Your task to perform on an android device: Show me the alarms in the clock app Image 0: 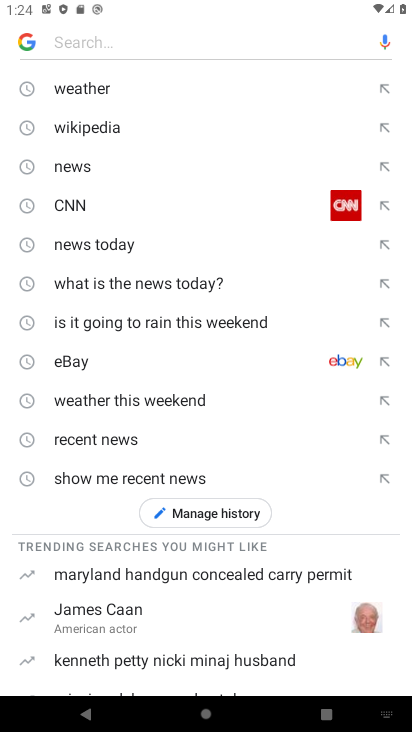
Step 0: press home button
Your task to perform on an android device: Show me the alarms in the clock app Image 1: 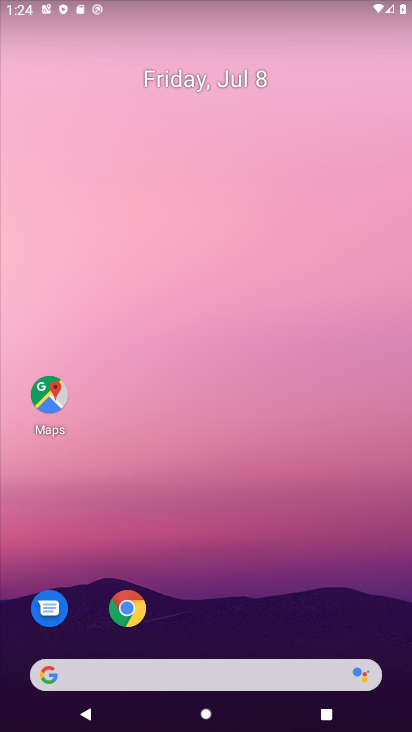
Step 1: drag from (381, 622) to (357, 77)
Your task to perform on an android device: Show me the alarms in the clock app Image 2: 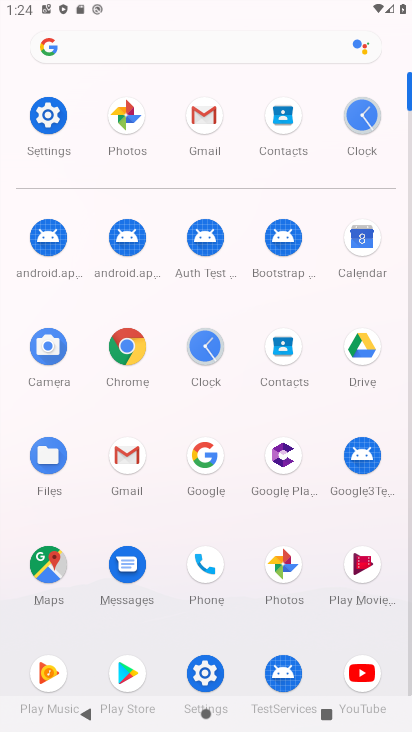
Step 2: click (202, 345)
Your task to perform on an android device: Show me the alarms in the clock app Image 3: 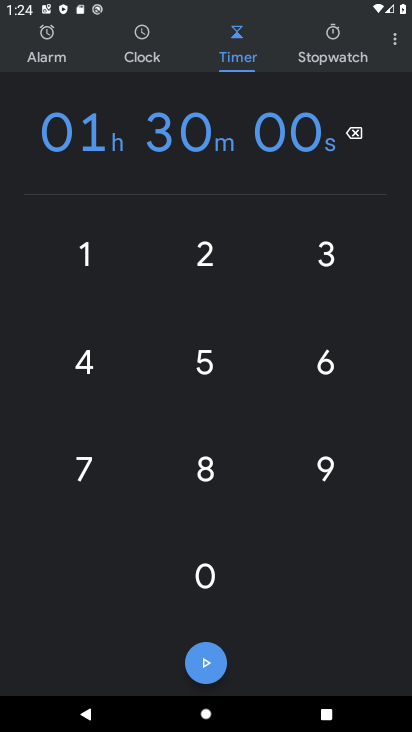
Step 3: click (47, 42)
Your task to perform on an android device: Show me the alarms in the clock app Image 4: 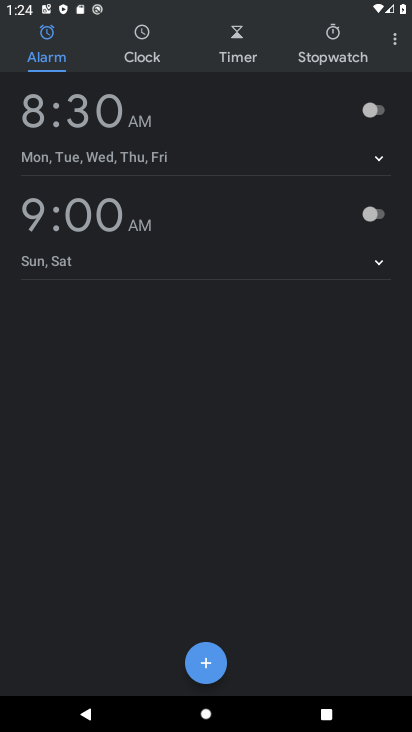
Step 4: task complete